Your task to perform on an android device: Go to network settings Image 0: 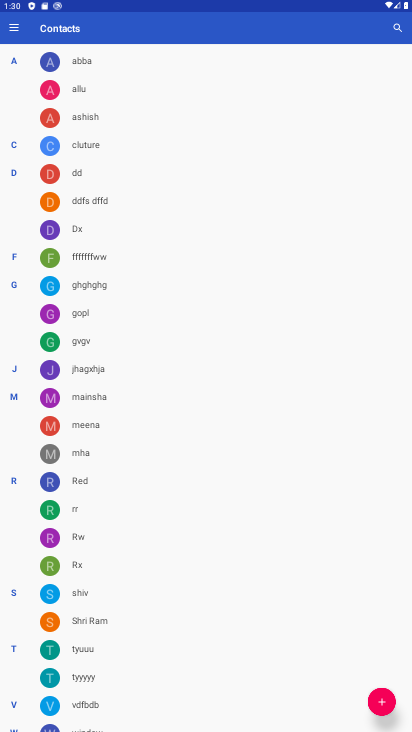
Step 0: drag from (194, 11) to (0, 574)
Your task to perform on an android device: Go to network settings Image 1: 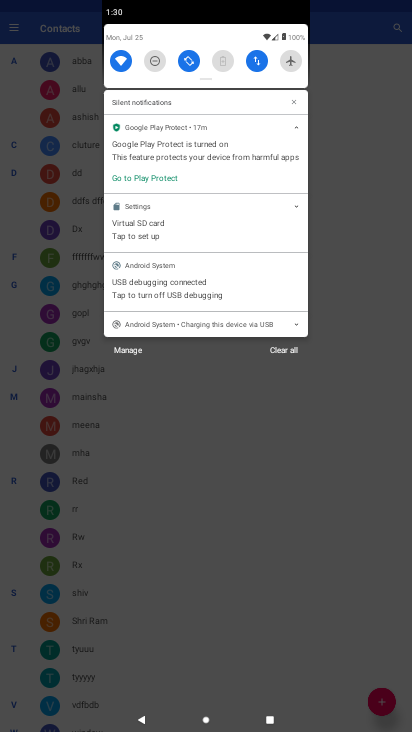
Step 1: click (256, 59)
Your task to perform on an android device: Go to network settings Image 2: 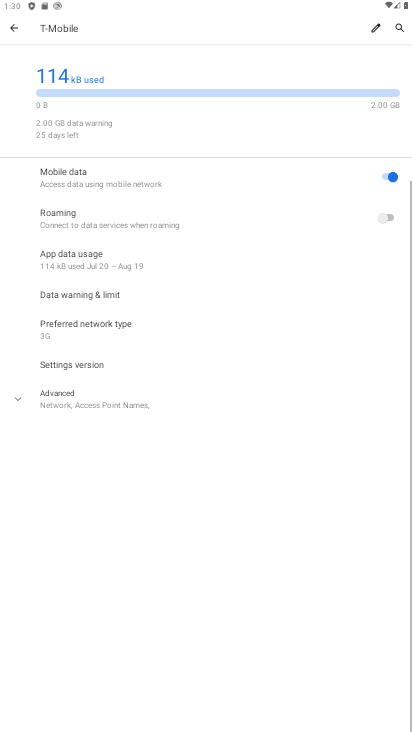
Step 2: click (256, 59)
Your task to perform on an android device: Go to network settings Image 3: 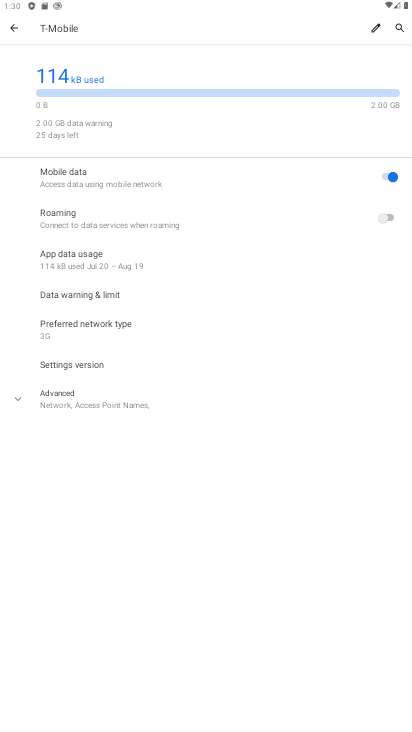
Step 3: task complete